Your task to perform on an android device: turn off priority inbox in the gmail app Image 0: 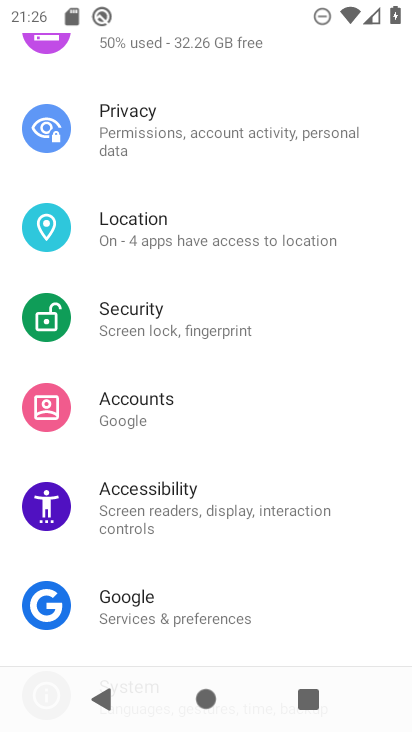
Step 0: press home button
Your task to perform on an android device: turn off priority inbox in the gmail app Image 1: 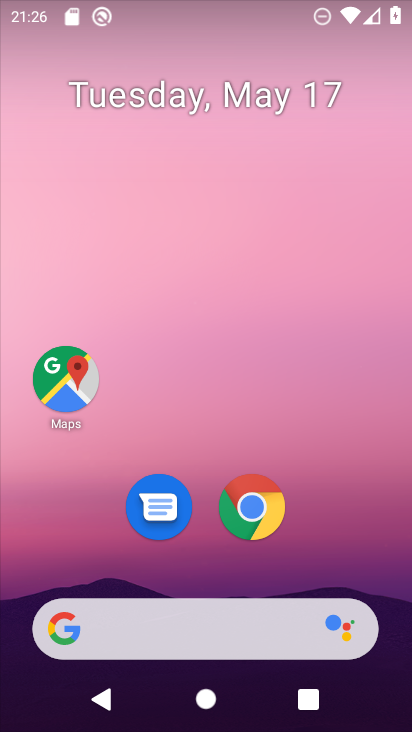
Step 1: drag from (363, 590) to (292, 32)
Your task to perform on an android device: turn off priority inbox in the gmail app Image 2: 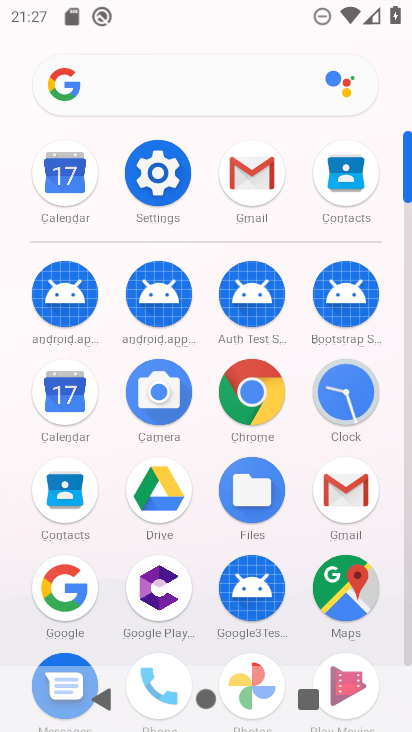
Step 2: click (265, 191)
Your task to perform on an android device: turn off priority inbox in the gmail app Image 3: 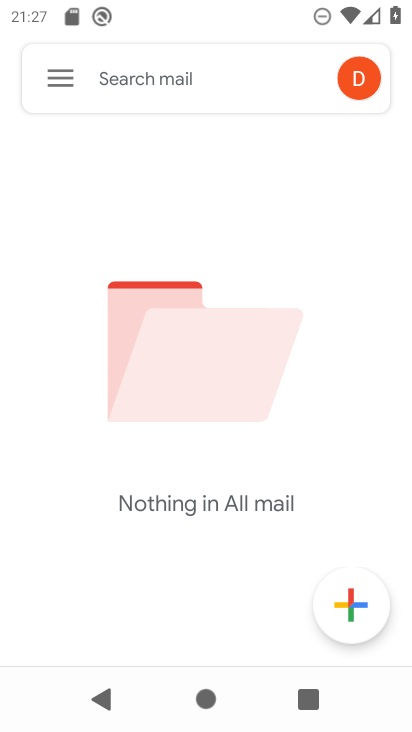
Step 3: click (58, 85)
Your task to perform on an android device: turn off priority inbox in the gmail app Image 4: 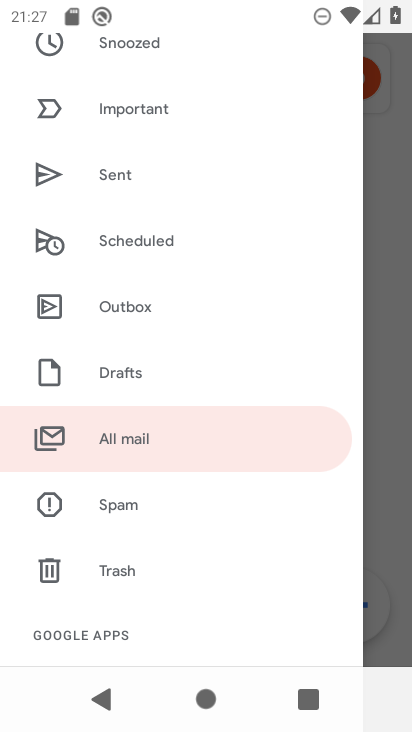
Step 4: drag from (229, 337) to (259, 560)
Your task to perform on an android device: turn off priority inbox in the gmail app Image 5: 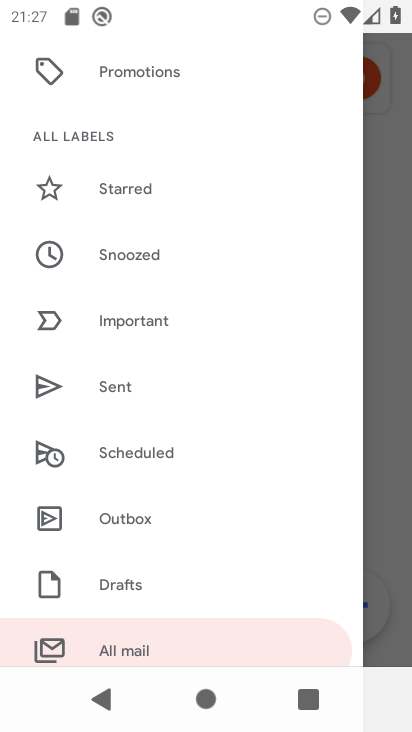
Step 5: drag from (243, 494) to (157, 21)
Your task to perform on an android device: turn off priority inbox in the gmail app Image 6: 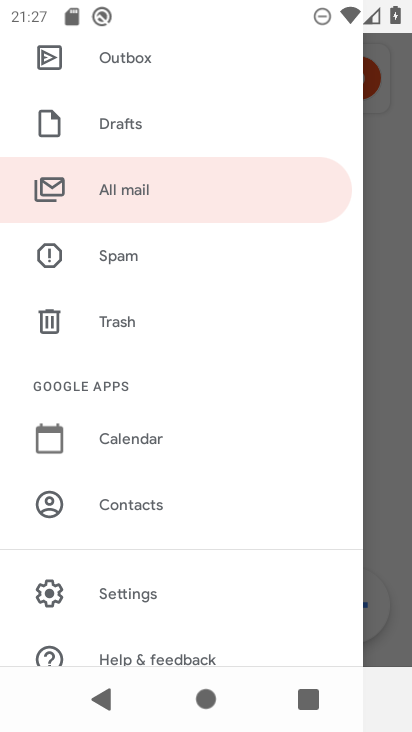
Step 6: click (101, 587)
Your task to perform on an android device: turn off priority inbox in the gmail app Image 7: 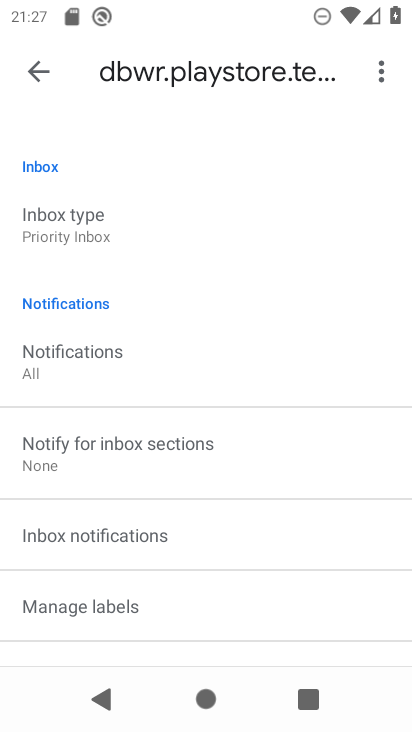
Step 7: click (58, 236)
Your task to perform on an android device: turn off priority inbox in the gmail app Image 8: 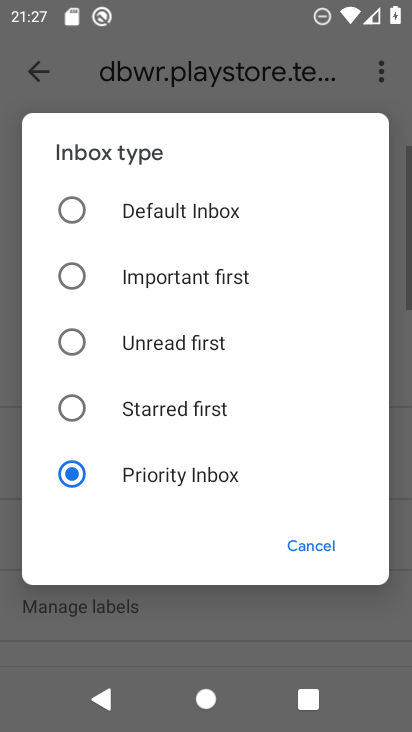
Step 8: click (70, 219)
Your task to perform on an android device: turn off priority inbox in the gmail app Image 9: 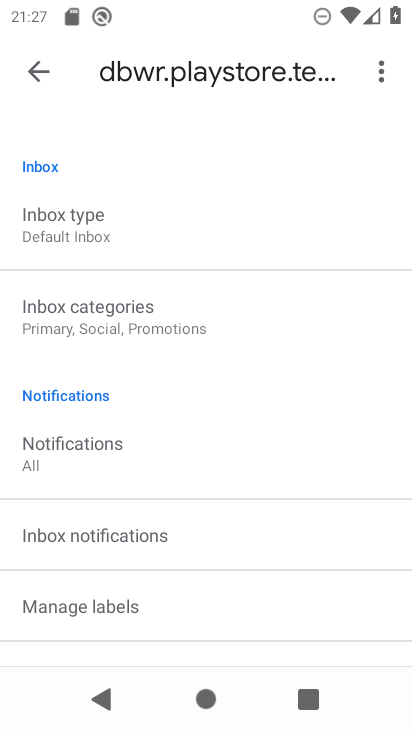
Step 9: task complete